Your task to perform on an android device: turn on data saver in the chrome app Image 0: 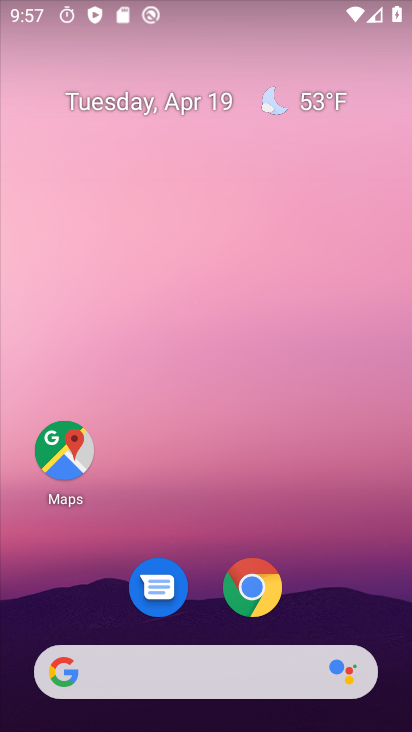
Step 0: drag from (356, 557) to (399, 89)
Your task to perform on an android device: turn on data saver in the chrome app Image 1: 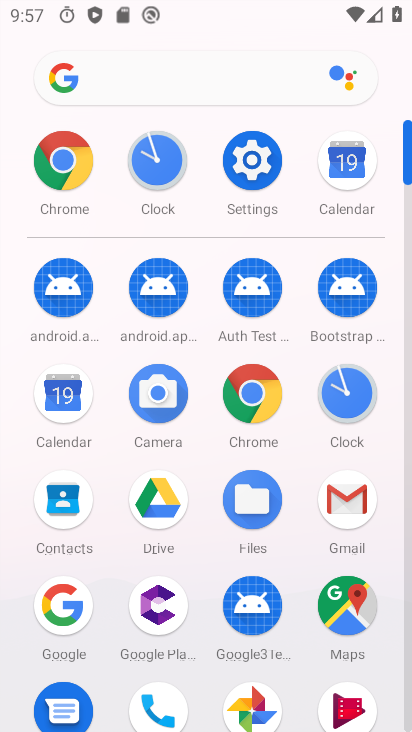
Step 1: click (67, 175)
Your task to perform on an android device: turn on data saver in the chrome app Image 2: 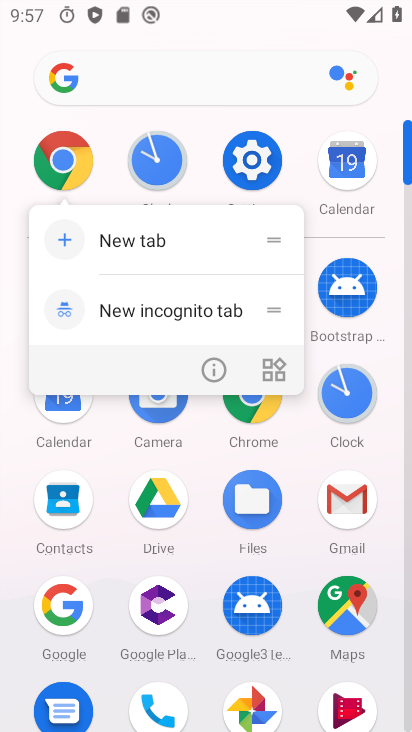
Step 2: click (67, 174)
Your task to perform on an android device: turn on data saver in the chrome app Image 3: 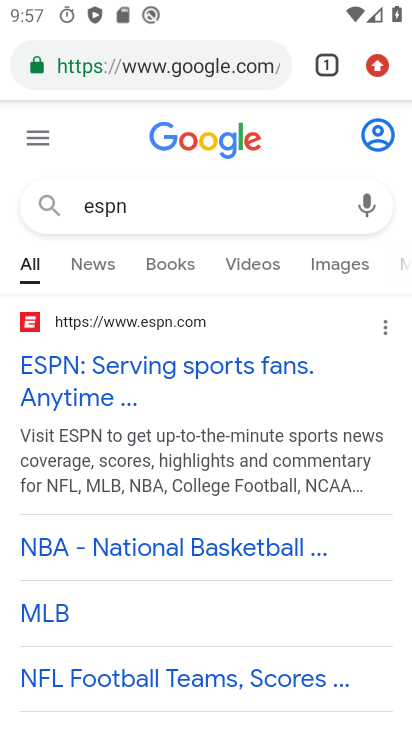
Step 3: click (379, 64)
Your task to perform on an android device: turn on data saver in the chrome app Image 4: 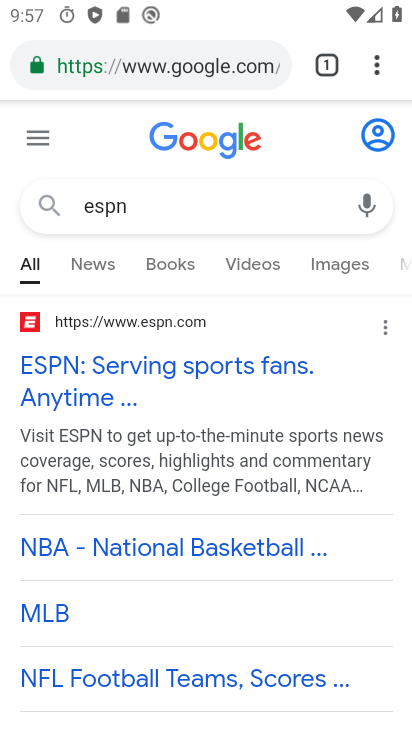
Step 4: drag from (378, 68) to (196, 634)
Your task to perform on an android device: turn on data saver in the chrome app Image 5: 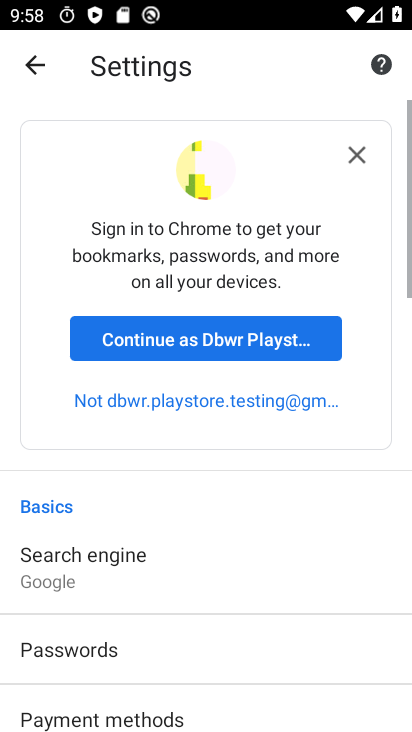
Step 5: drag from (197, 624) to (280, 232)
Your task to perform on an android device: turn on data saver in the chrome app Image 6: 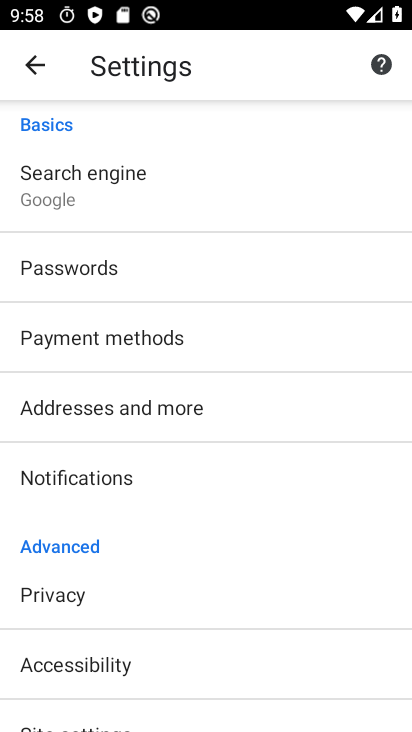
Step 6: drag from (254, 476) to (291, 205)
Your task to perform on an android device: turn on data saver in the chrome app Image 7: 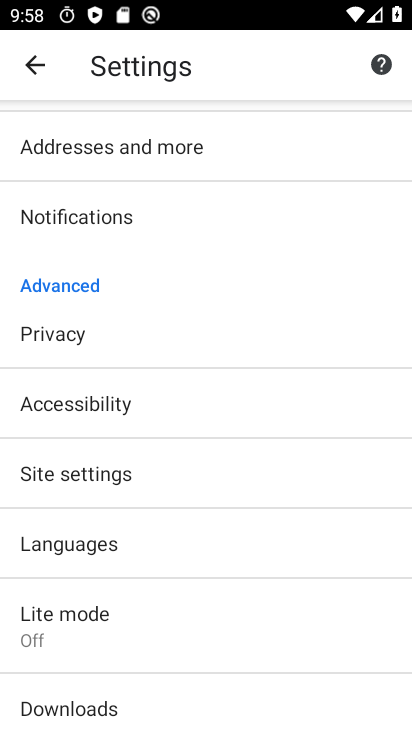
Step 7: click (134, 555)
Your task to perform on an android device: turn on data saver in the chrome app Image 8: 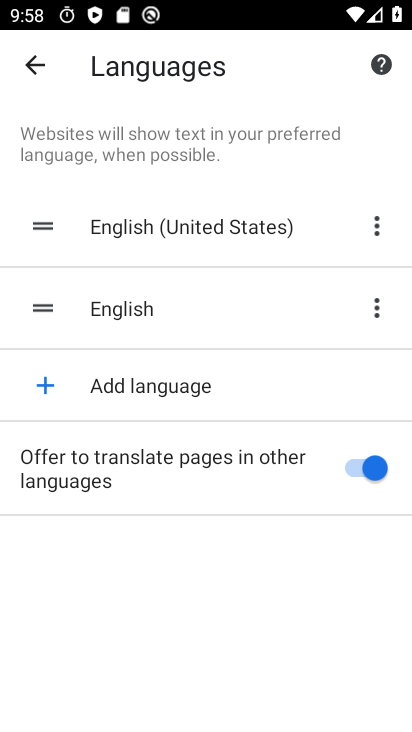
Step 8: task complete